Your task to perform on an android device: Open Amazon Image 0: 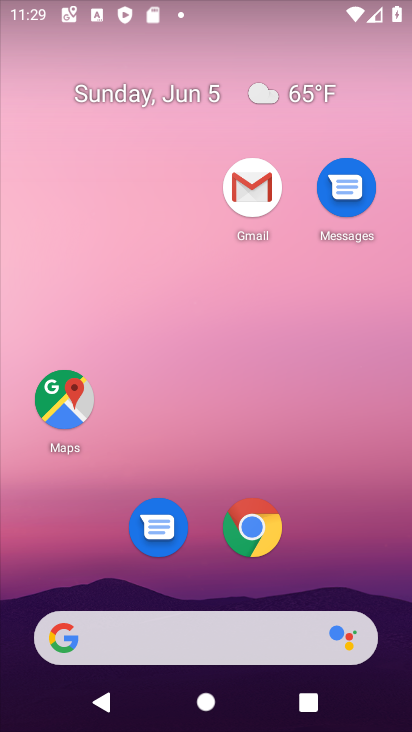
Step 0: click (257, 529)
Your task to perform on an android device: Open Amazon Image 1: 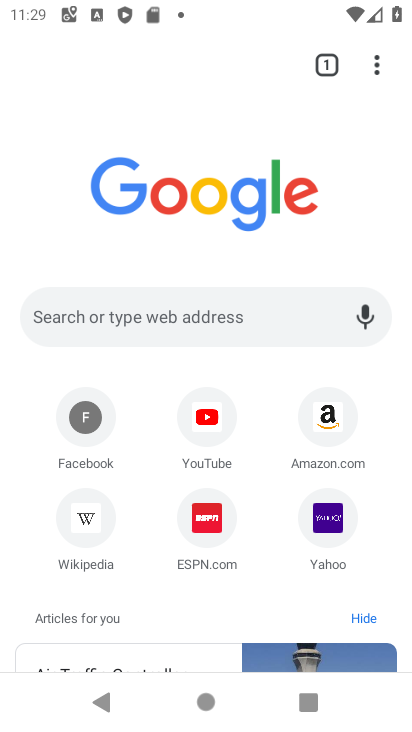
Step 1: click (318, 406)
Your task to perform on an android device: Open Amazon Image 2: 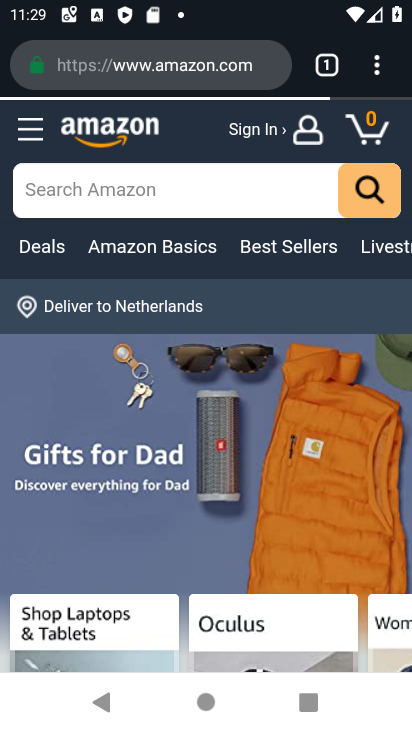
Step 2: task complete